Your task to perform on an android device: turn smart compose on in the gmail app Image 0: 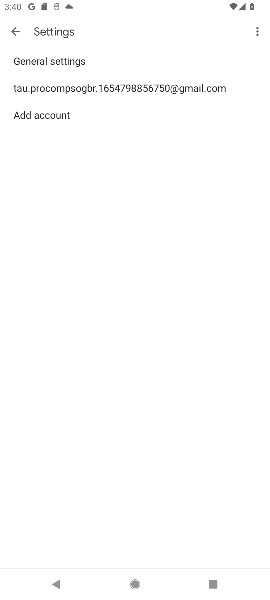
Step 0: click (15, 29)
Your task to perform on an android device: turn smart compose on in the gmail app Image 1: 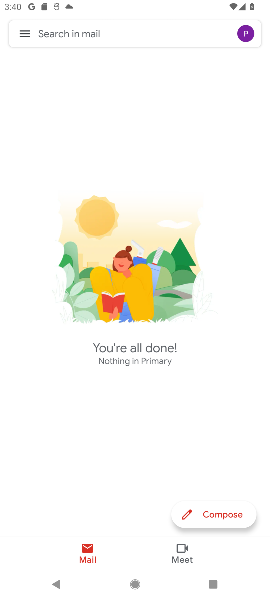
Step 1: press back button
Your task to perform on an android device: turn smart compose on in the gmail app Image 2: 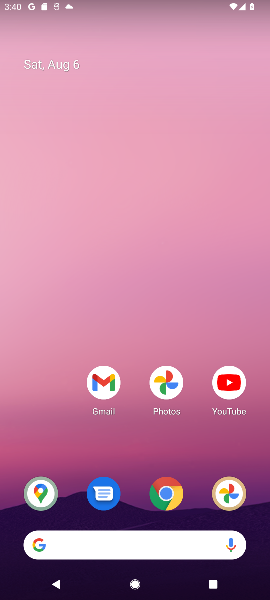
Step 2: drag from (134, 497) to (96, 170)
Your task to perform on an android device: turn smart compose on in the gmail app Image 3: 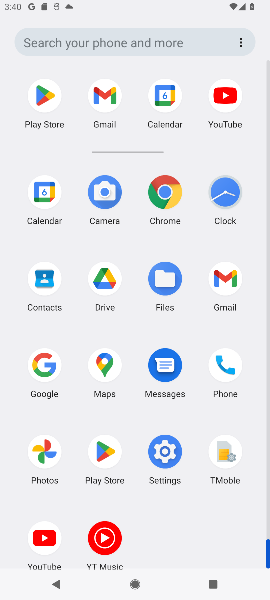
Step 3: click (215, 283)
Your task to perform on an android device: turn smart compose on in the gmail app Image 4: 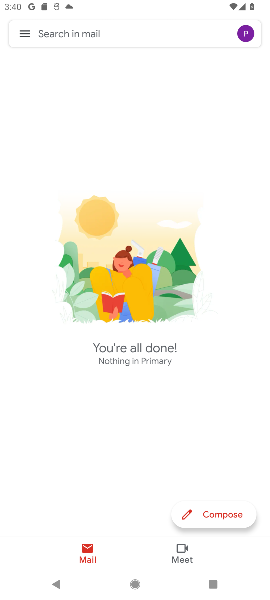
Step 4: click (24, 35)
Your task to perform on an android device: turn smart compose on in the gmail app Image 5: 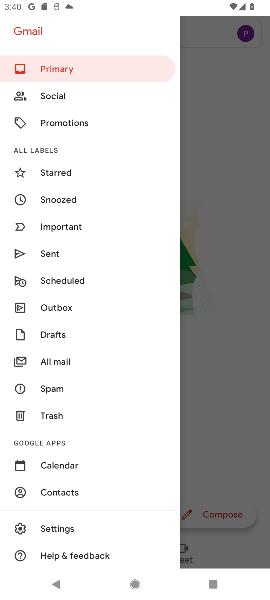
Step 5: click (54, 527)
Your task to perform on an android device: turn smart compose on in the gmail app Image 6: 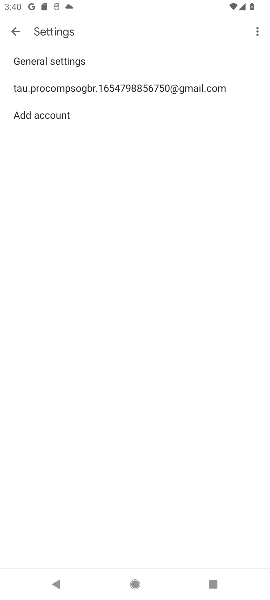
Step 6: click (85, 87)
Your task to perform on an android device: turn smart compose on in the gmail app Image 7: 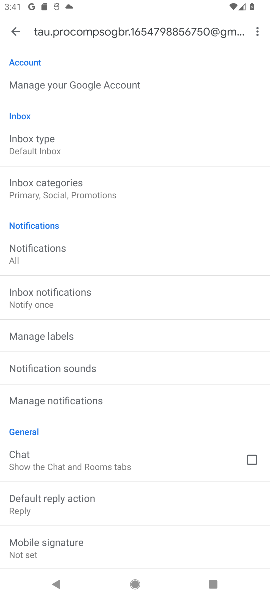
Step 7: drag from (123, 452) to (121, 156)
Your task to perform on an android device: turn smart compose on in the gmail app Image 8: 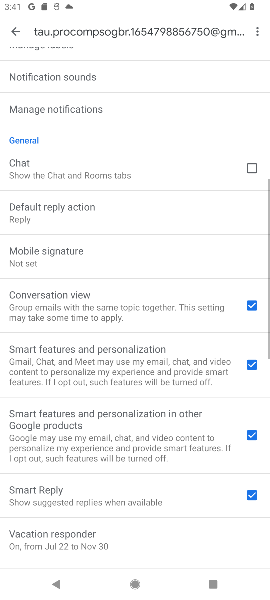
Step 8: click (154, 253)
Your task to perform on an android device: turn smart compose on in the gmail app Image 9: 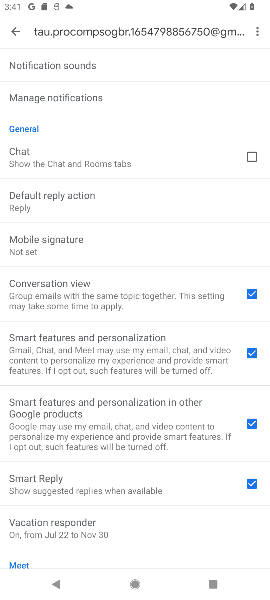
Step 9: drag from (151, 473) to (135, 239)
Your task to perform on an android device: turn smart compose on in the gmail app Image 10: 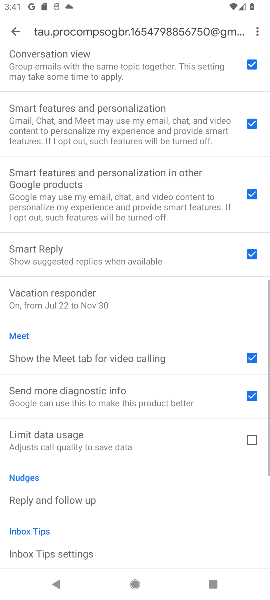
Step 10: drag from (140, 367) to (143, 251)
Your task to perform on an android device: turn smart compose on in the gmail app Image 11: 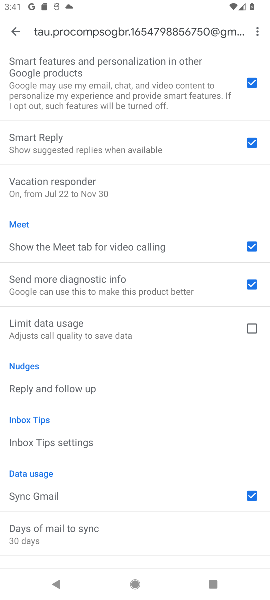
Step 11: click (132, 304)
Your task to perform on an android device: turn smart compose on in the gmail app Image 12: 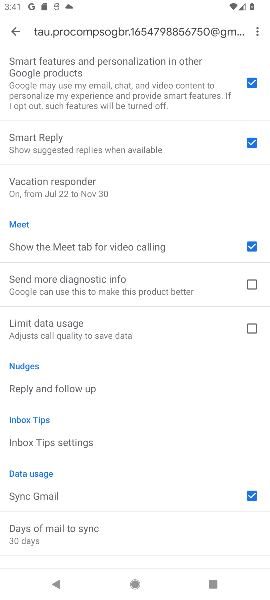
Step 12: drag from (108, 138) to (112, 416)
Your task to perform on an android device: turn smart compose on in the gmail app Image 13: 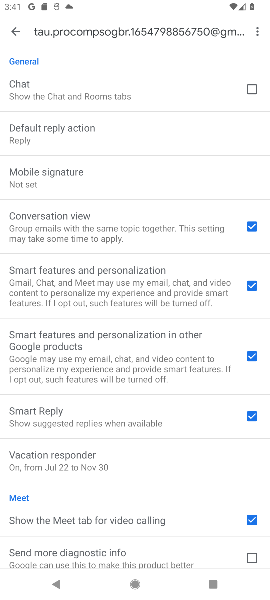
Step 13: click (249, 411)
Your task to perform on an android device: turn smart compose on in the gmail app Image 14: 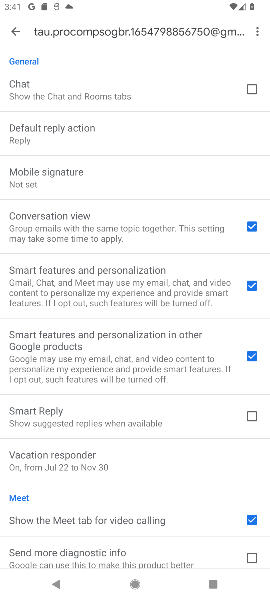
Step 14: task complete